Your task to perform on an android device: turn vacation reply on in the gmail app Image 0: 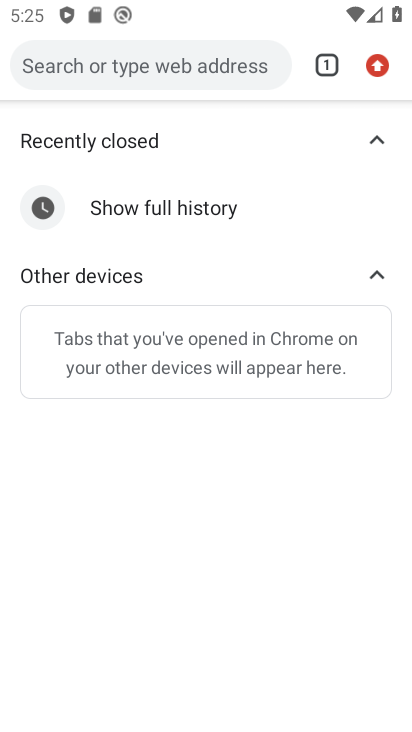
Step 0: press home button
Your task to perform on an android device: turn vacation reply on in the gmail app Image 1: 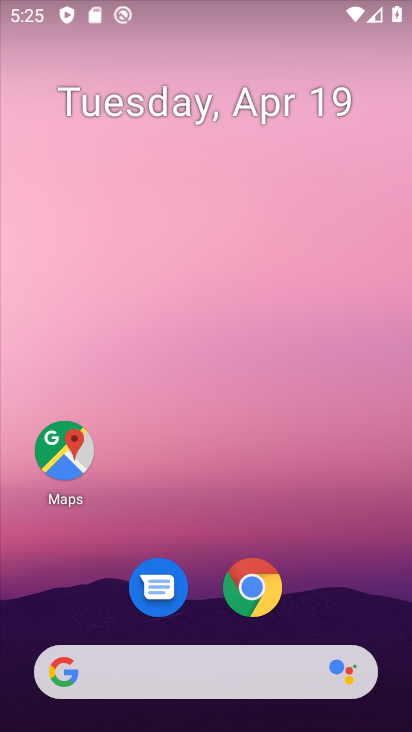
Step 1: drag from (196, 617) to (221, 39)
Your task to perform on an android device: turn vacation reply on in the gmail app Image 2: 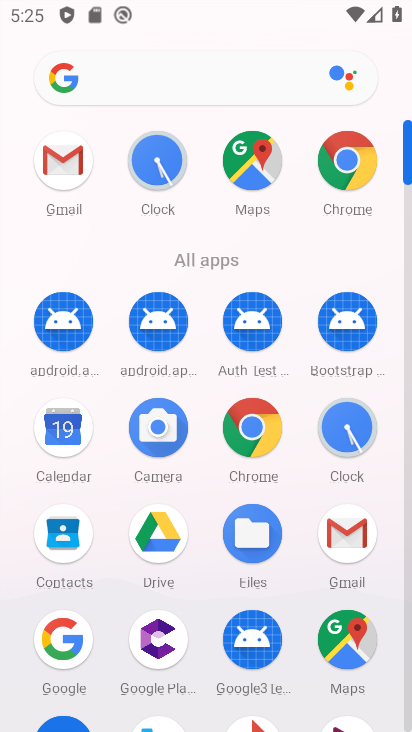
Step 2: click (352, 530)
Your task to perform on an android device: turn vacation reply on in the gmail app Image 3: 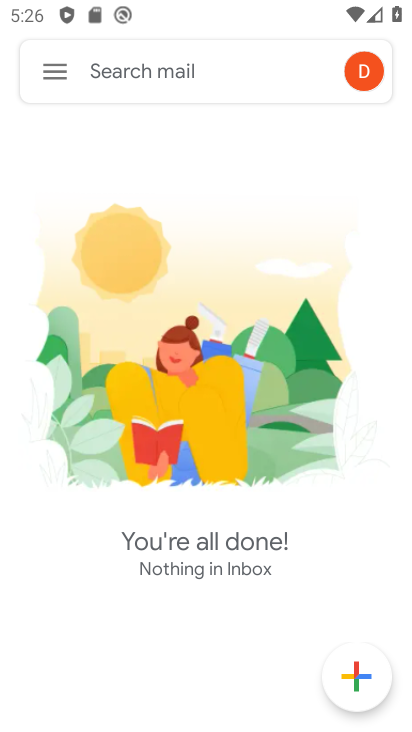
Step 3: click (62, 78)
Your task to perform on an android device: turn vacation reply on in the gmail app Image 4: 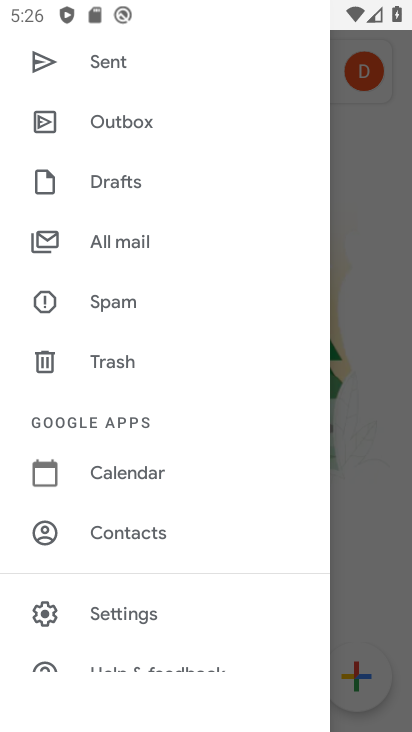
Step 4: click (176, 621)
Your task to perform on an android device: turn vacation reply on in the gmail app Image 5: 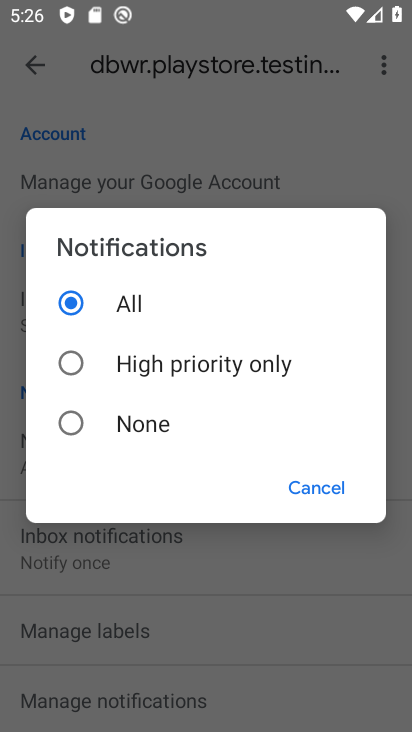
Step 5: click (318, 478)
Your task to perform on an android device: turn vacation reply on in the gmail app Image 6: 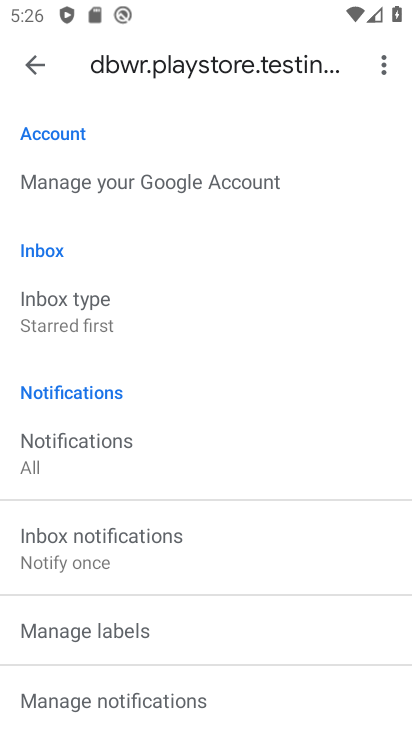
Step 6: drag from (143, 594) to (265, 111)
Your task to perform on an android device: turn vacation reply on in the gmail app Image 7: 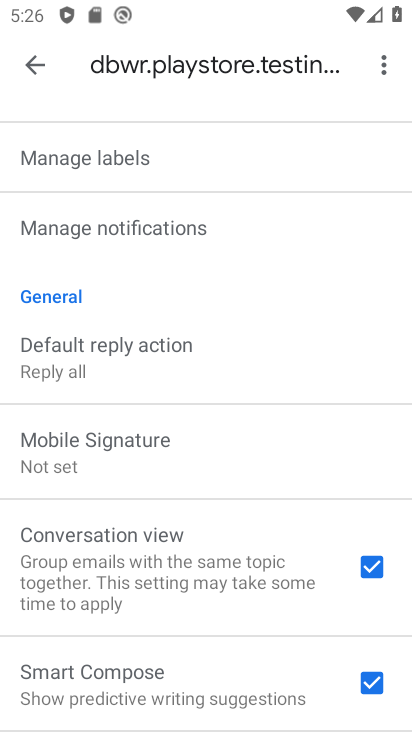
Step 7: drag from (56, 616) to (161, 208)
Your task to perform on an android device: turn vacation reply on in the gmail app Image 8: 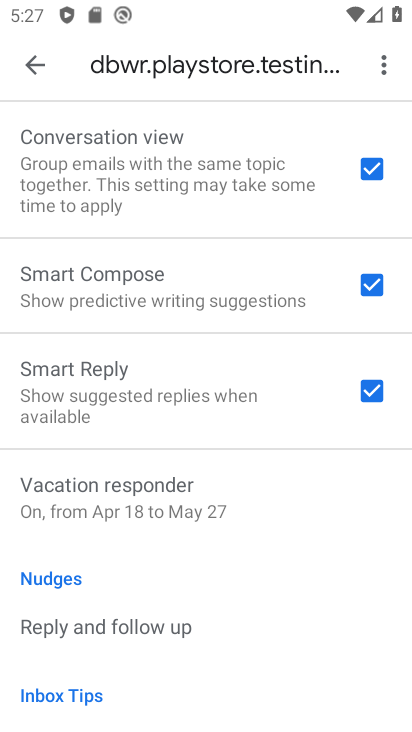
Step 8: click (128, 488)
Your task to perform on an android device: turn vacation reply on in the gmail app Image 9: 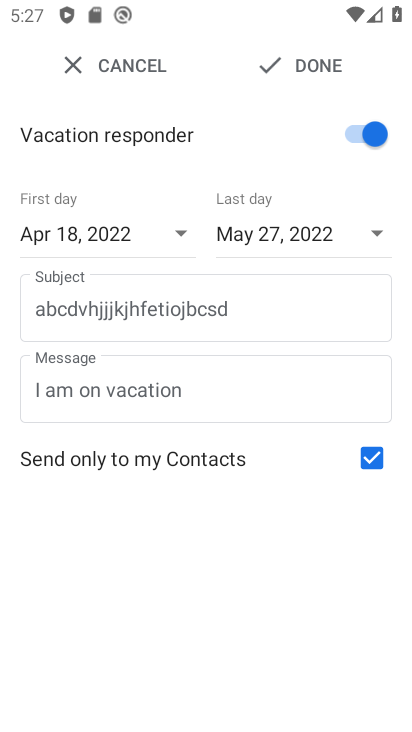
Step 9: click (322, 59)
Your task to perform on an android device: turn vacation reply on in the gmail app Image 10: 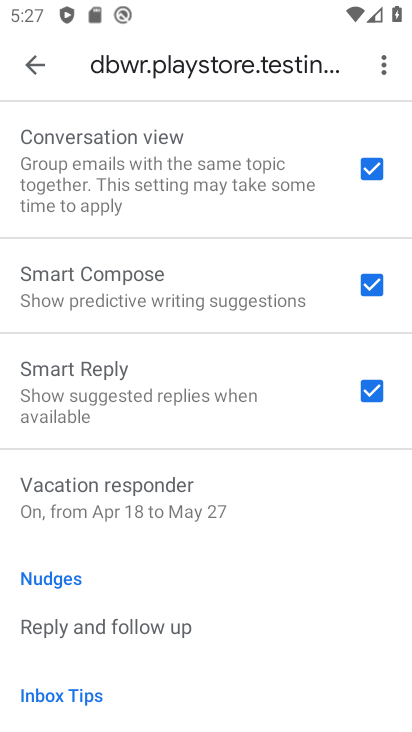
Step 10: task complete